Your task to perform on an android device: open a new tab in the chrome app Image 0: 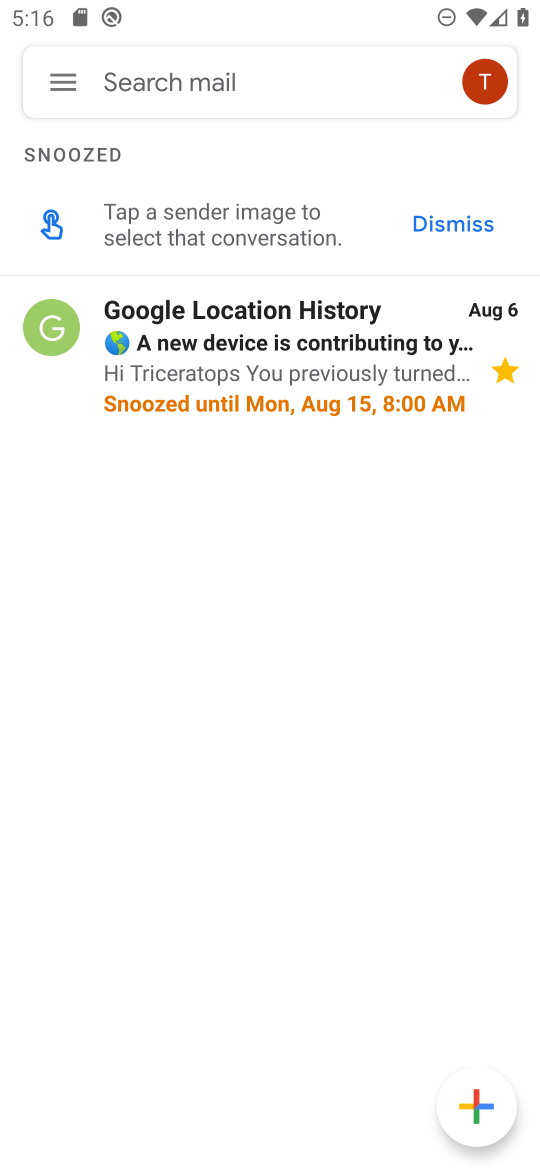
Step 0: press home button
Your task to perform on an android device: open a new tab in the chrome app Image 1: 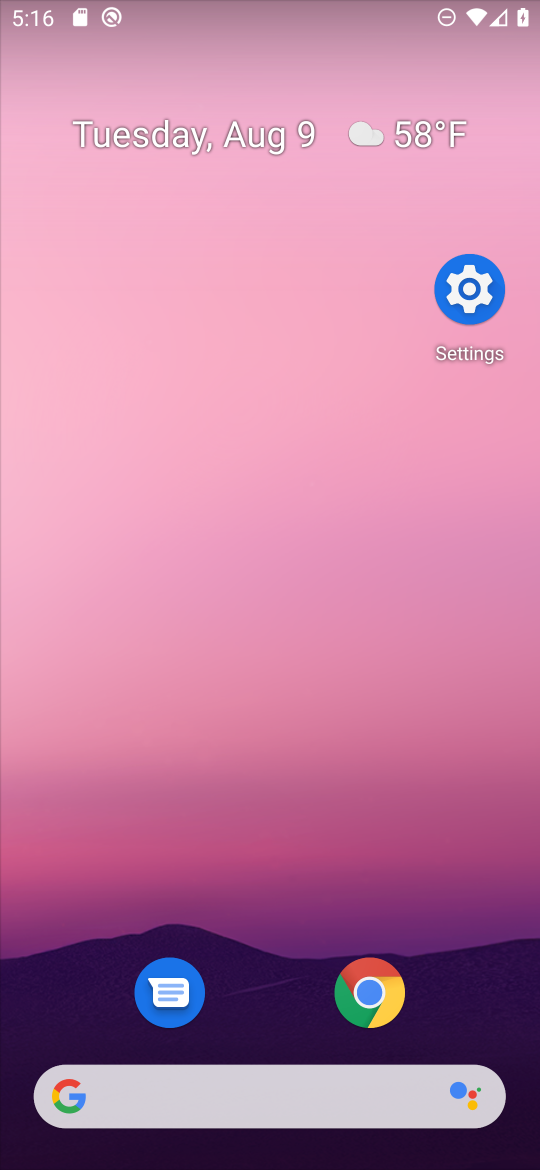
Step 1: drag from (243, 1097) to (283, 4)
Your task to perform on an android device: open a new tab in the chrome app Image 2: 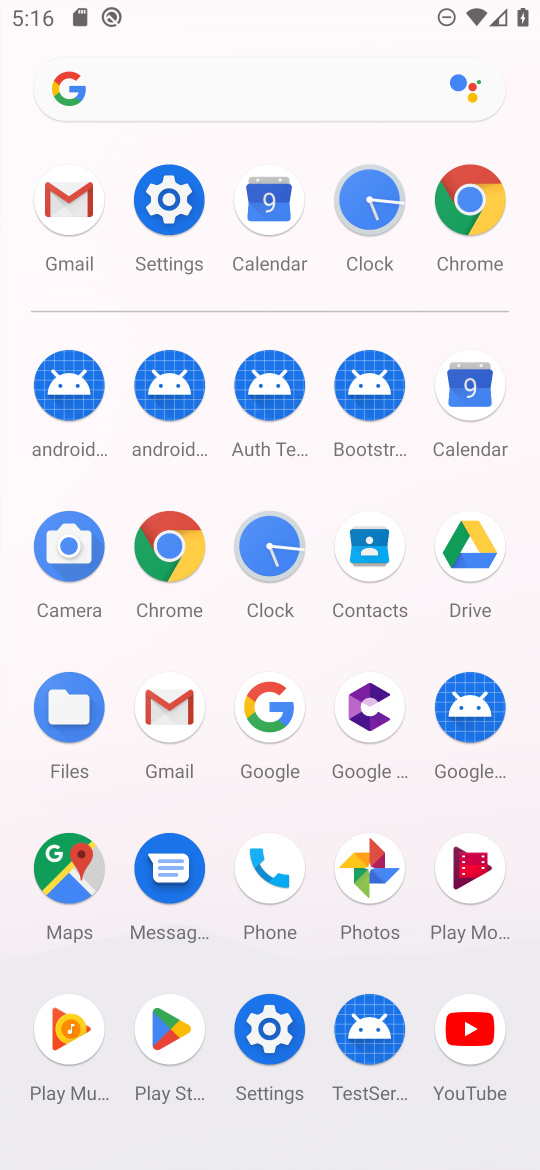
Step 2: click (183, 565)
Your task to perform on an android device: open a new tab in the chrome app Image 3: 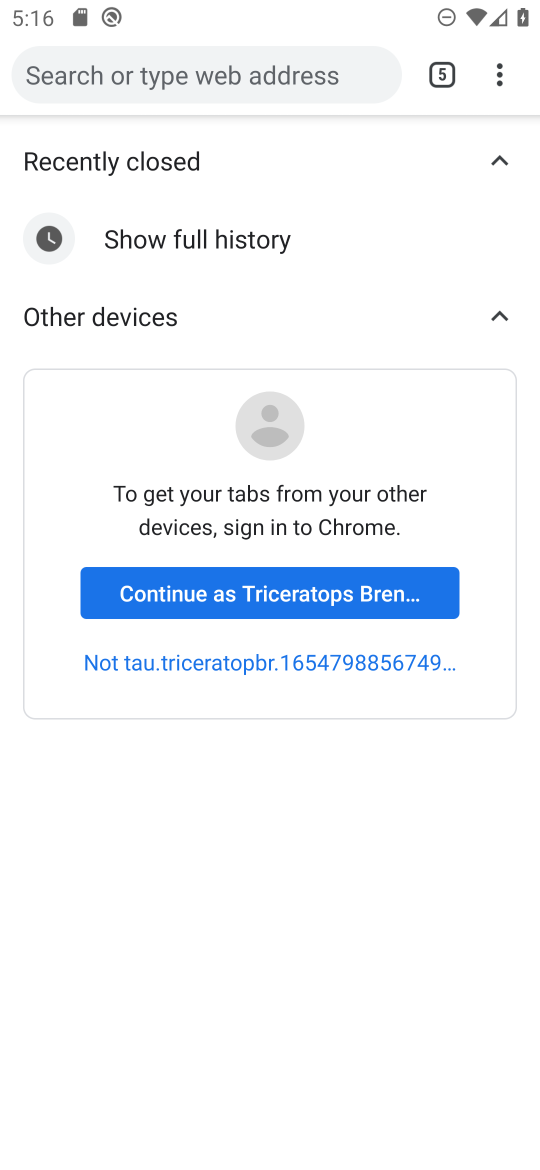
Step 3: task complete